Your task to perform on an android device: find which apps use the phone's location Image 0: 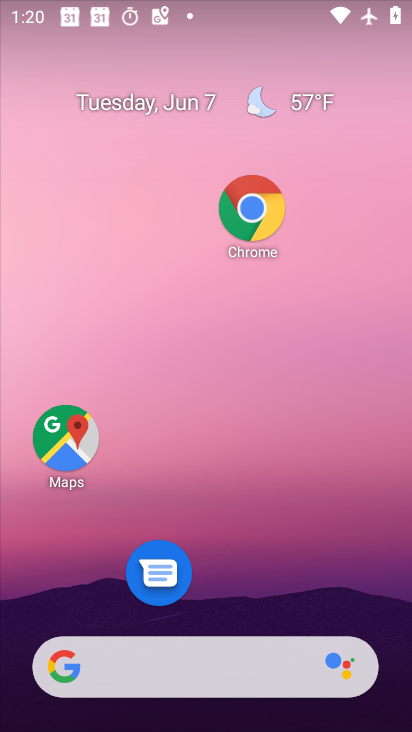
Step 0: drag from (219, 585) to (159, 195)
Your task to perform on an android device: find which apps use the phone's location Image 1: 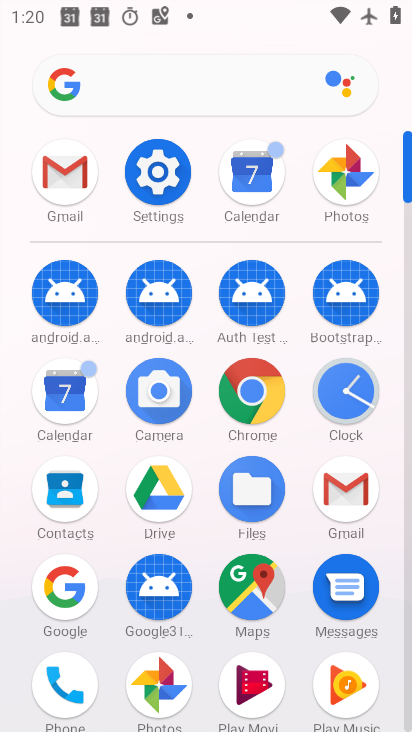
Step 1: click (141, 187)
Your task to perform on an android device: find which apps use the phone's location Image 2: 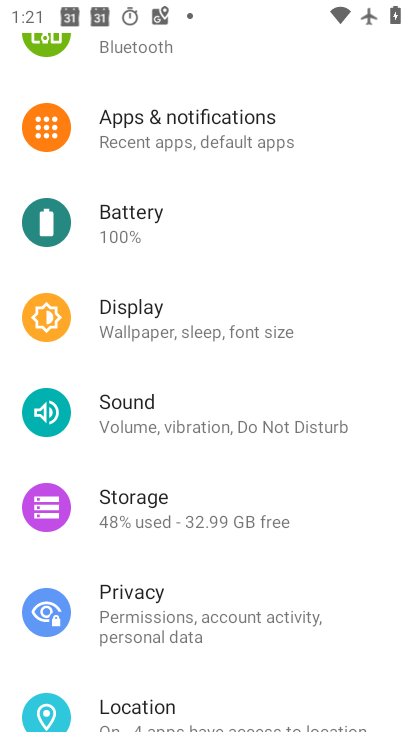
Step 2: drag from (185, 619) to (185, 479)
Your task to perform on an android device: find which apps use the phone's location Image 3: 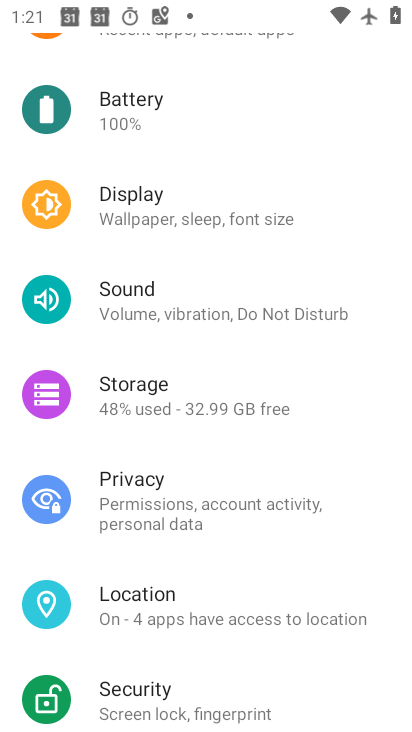
Step 3: click (177, 613)
Your task to perform on an android device: find which apps use the phone's location Image 4: 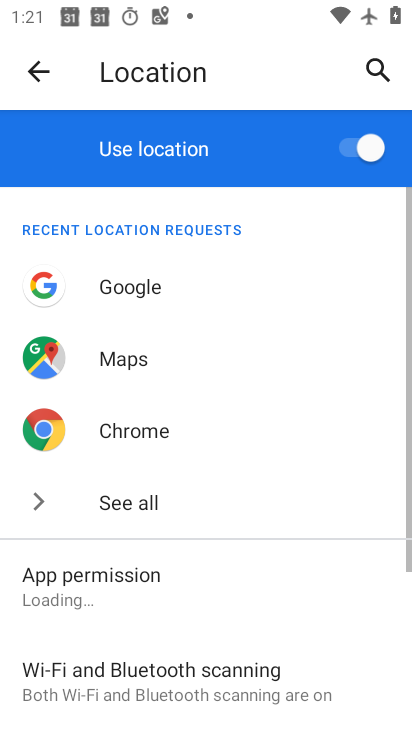
Step 4: drag from (212, 641) to (216, 361)
Your task to perform on an android device: find which apps use the phone's location Image 5: 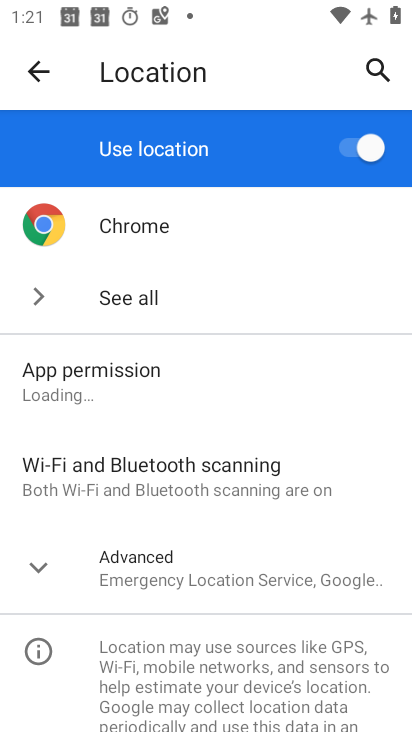
Step 5: drag from (220, 593) to (226, 356)
Your task to perform on an android device: find which apps use the phone's location Image 6: 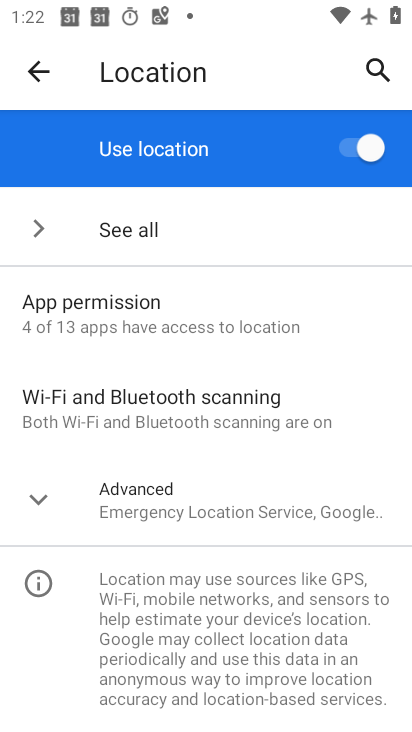
Step 6: drag from (214, 653) to (215, 403)
Your task to perform on an android device: find which apps use the phone's location Image 7: 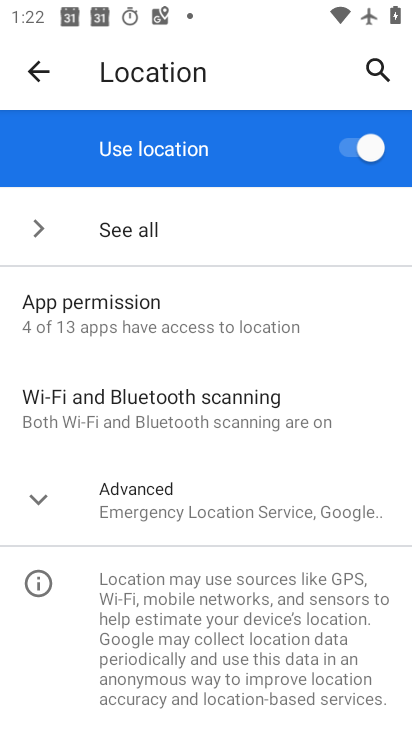
Step 7: click (135, 332)
Your task to perform on an android device: find which apps use the phone's location Image 8: 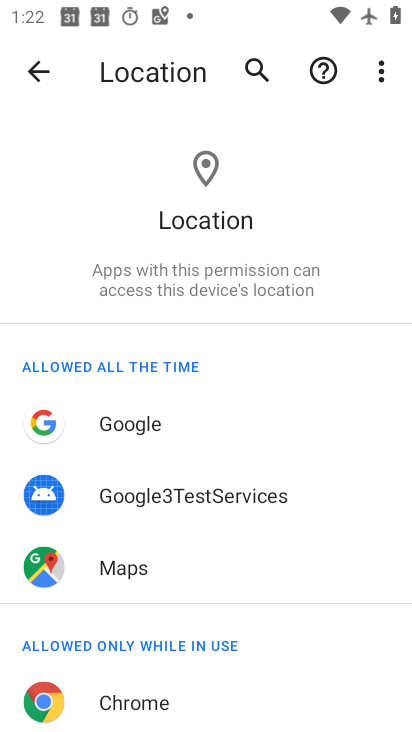
Step 8: task complete